Your task to perform on an android device: Show me productivity apps on the Play Store Image 0: 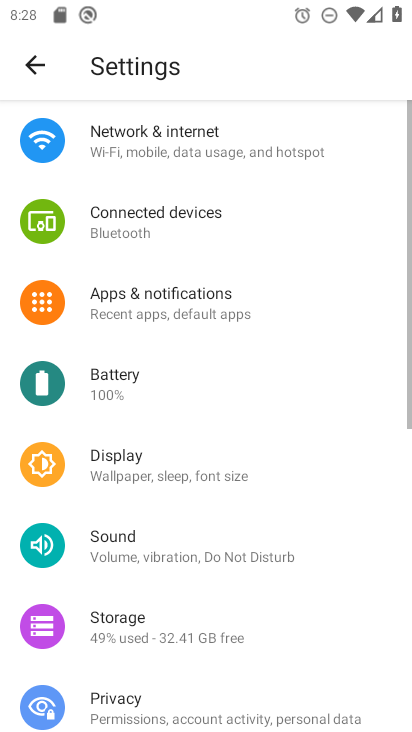
Step 0: press home button
Your task to perform on an android device: Show me productivity apps on the Play Store Image 1: 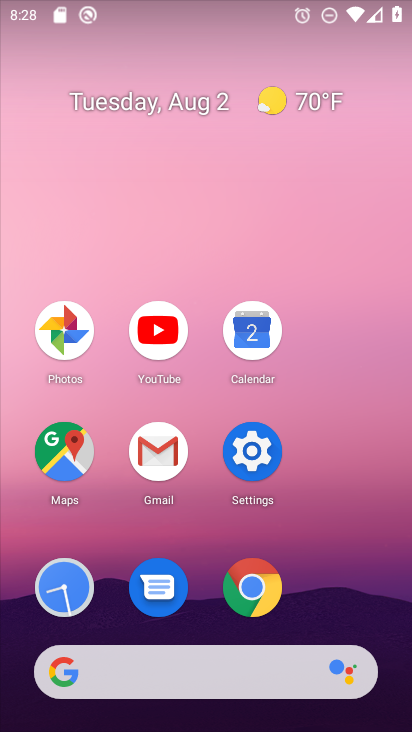
Step 1: drag from (310, 516) to (312, 17)
Your task to perform on an android device: Show me productivity apps on the Play Store Image 2: 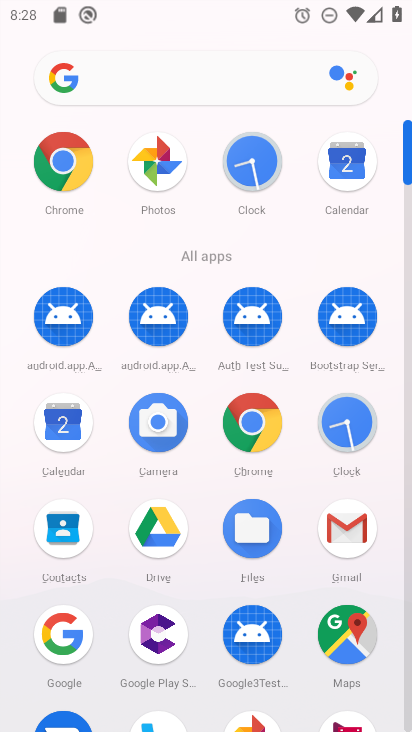
Step 2: drag from (188, 615) to (184, 245)
Your task to perform on an android device: Show me productivity apps on the Play Store Image 3: 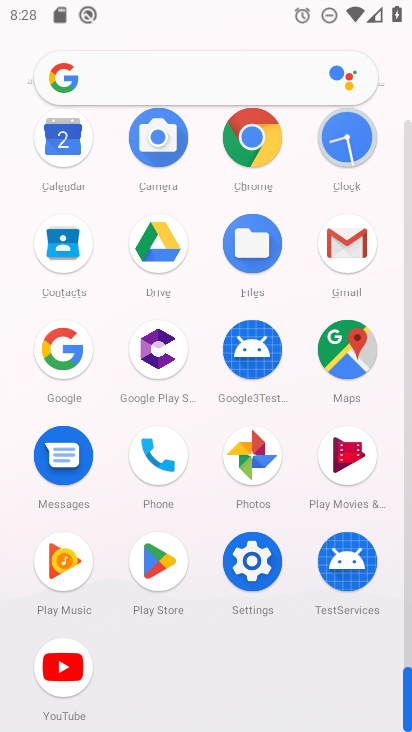
Step 3: click (150, 561)
Your task to perform on an android device: Show me productivity apps on the Play Store Image 4: 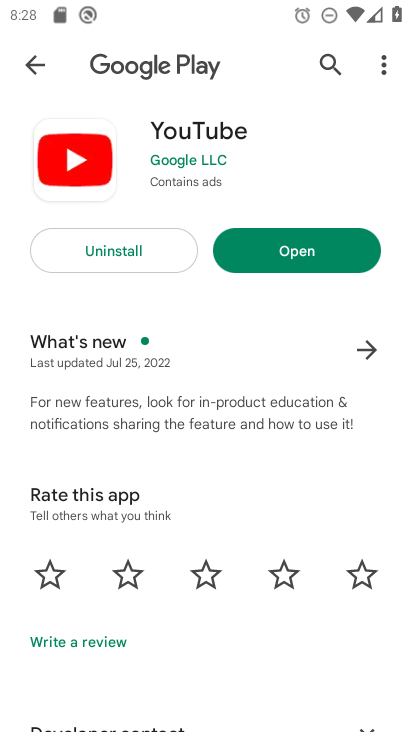
Step 4: click (33, 63)
Your task to perform on an android device: Show me productivity apps on the Play Store Image 5: 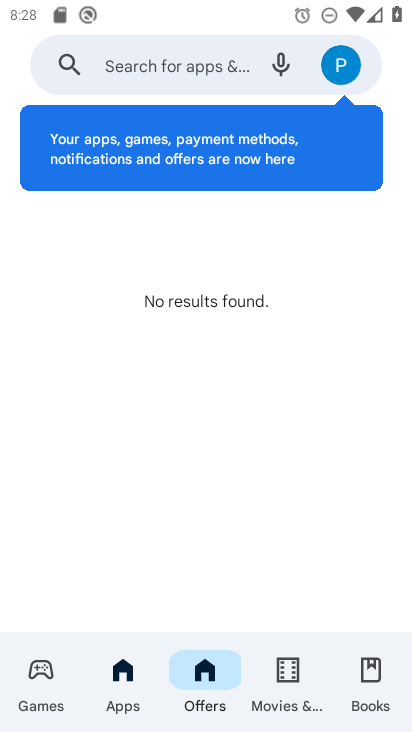
Step 5: click (114, 684)
Your task to perform on an android device: Show me productivity apps on the Play Store Image 6: 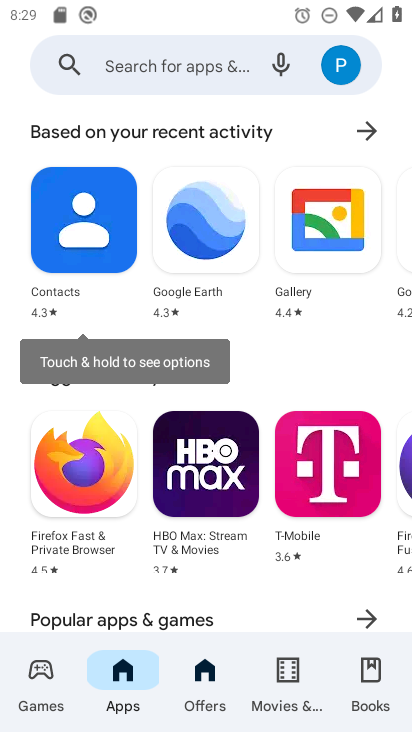
Step 6: task complete